Your task to perform on an android device: Is it going to rain this weekend? Image 0: 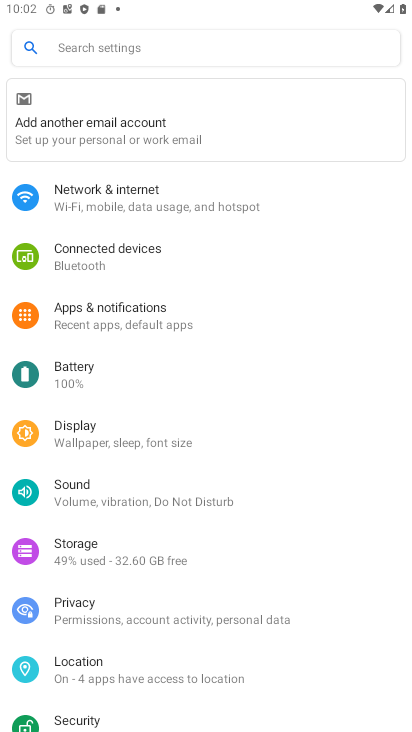
Step 0: press back button
Your task to perform on an android device: Is it going to rain this weekend? Image 1: 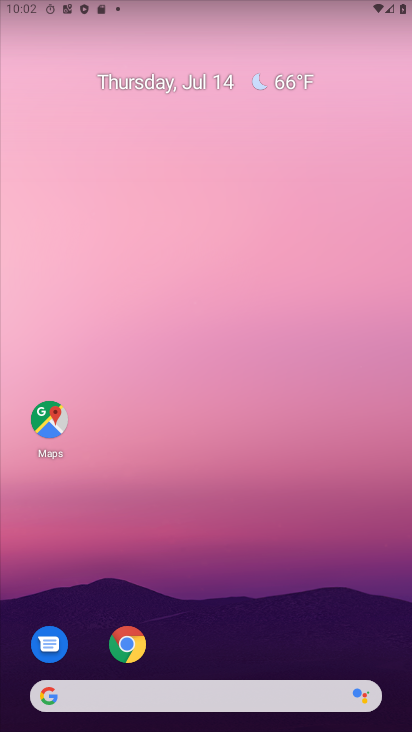
Step 1: drag from (213, 659) to (200, 337)
Your task to perform on an android device: Is it going to rain this weekend? Image 2: 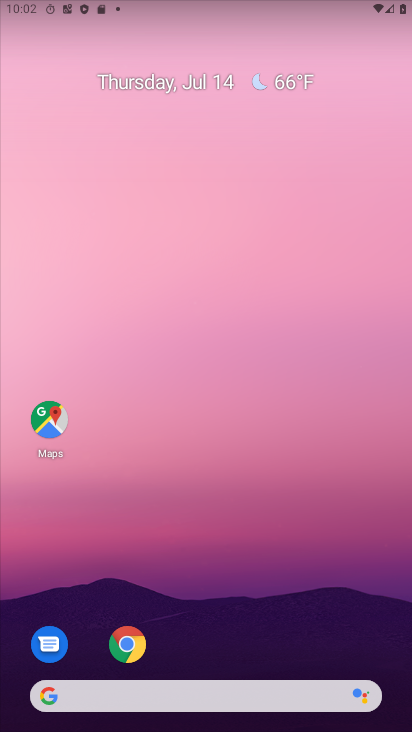
Step 2: drag from (253, 661) to (243, 180)
Your task to perform on an android device: Is it going to rain this weekend? Image 3: 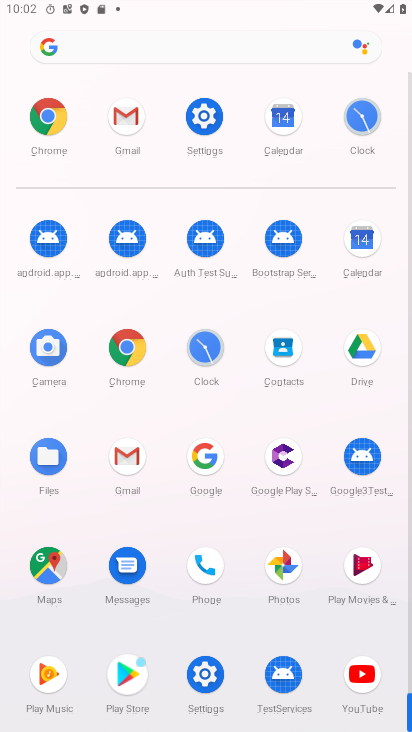
Step 3: click (47, 115)
Your task to perform on an android device: Is it going to rain this weekend? Image 4: 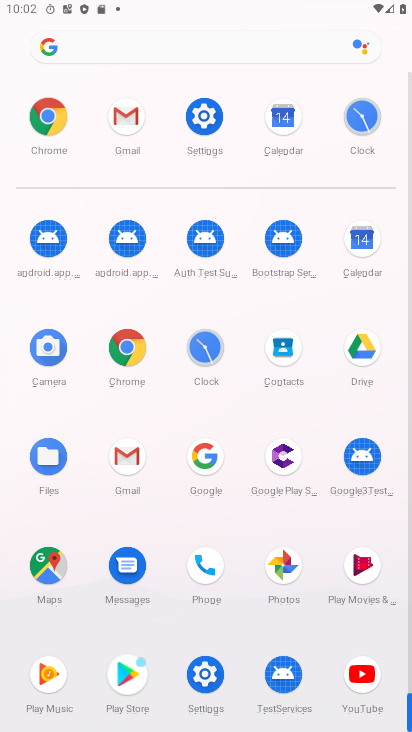
Step 4: click (47, 115)
Your task to perform on an android device: Is it going to rain this weekend? Image 5: 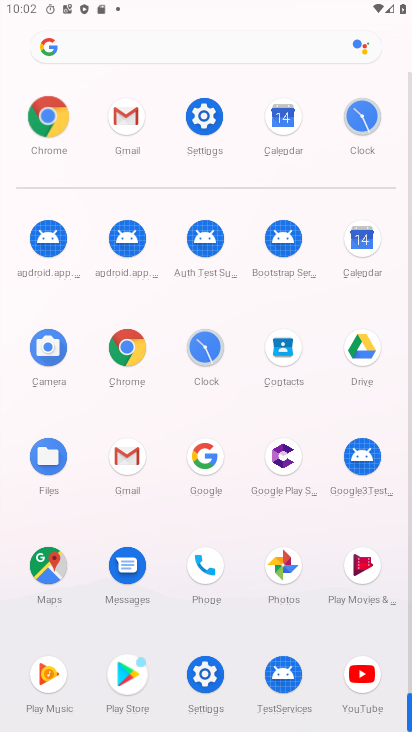
Step 5: click (47, 115)
Your task to perform on an android device: Is it going to rain this weekend? Image 6: 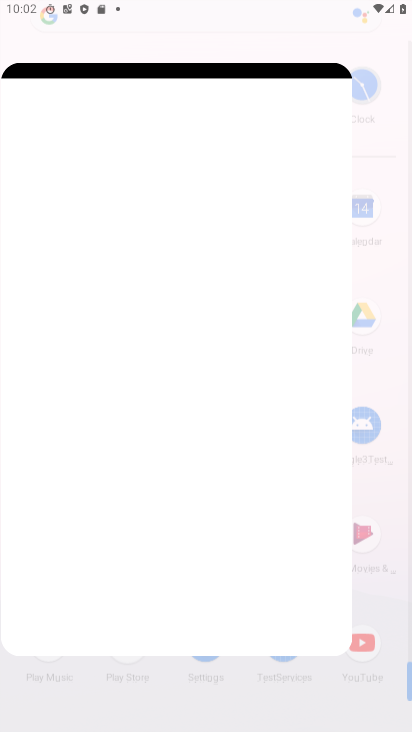
Step 6: click (47, 115)
Your task to perform on an android device: Is it going to rain this weekend? Image 7: 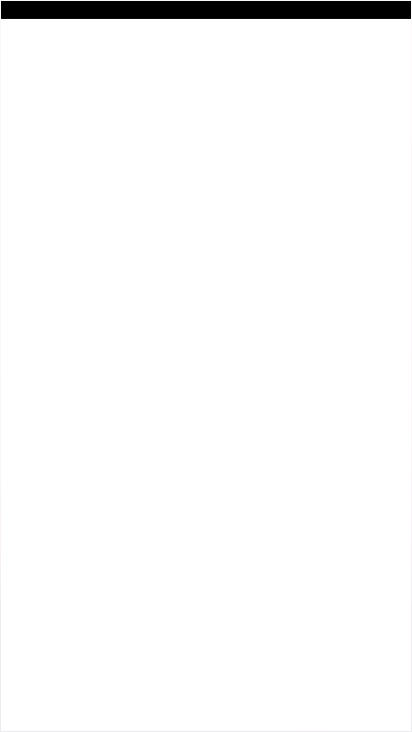
Step 7: click (47, 115)
Your task to perform on an android device: Is it going to rain this weekend? Image 8: 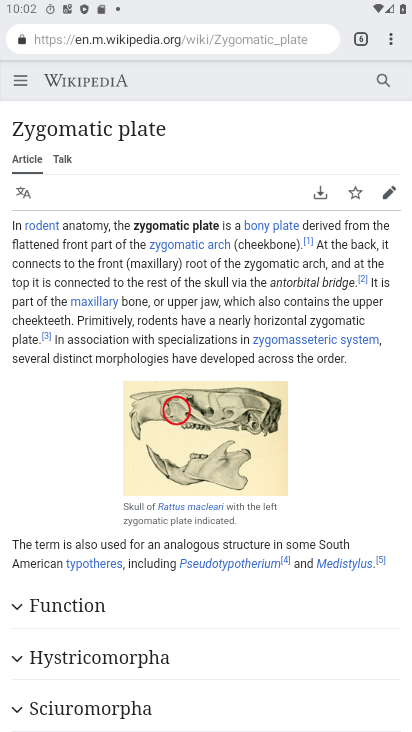
Step 8: drag from (382, 47) to (262, 468)
Your task to perform on an android device: Is it going to rain this weekend? Image 9: 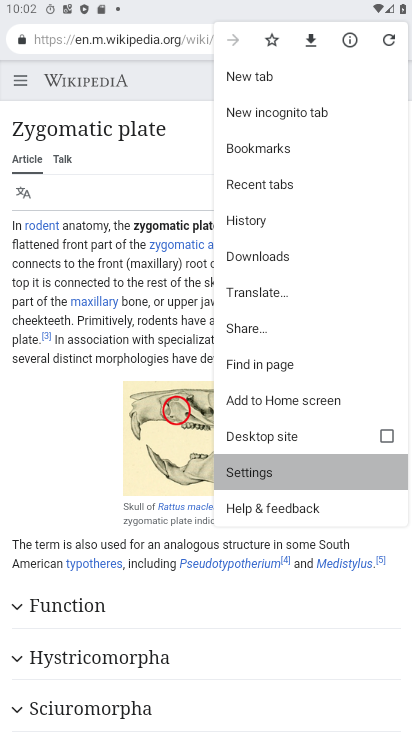
Step 9: click (263, 482)
Your task to perform on an android device: Is it going to rain this weekend? Image 10: 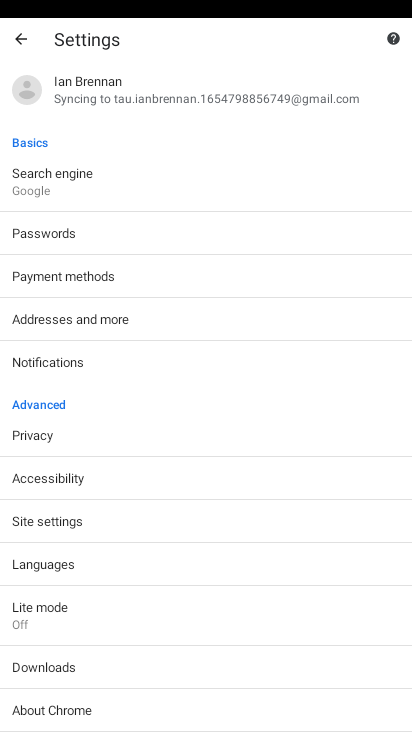
Step 10: click (22, 44)
Your task to perform on an android device: Is it going to rain this weekend? Image 11: 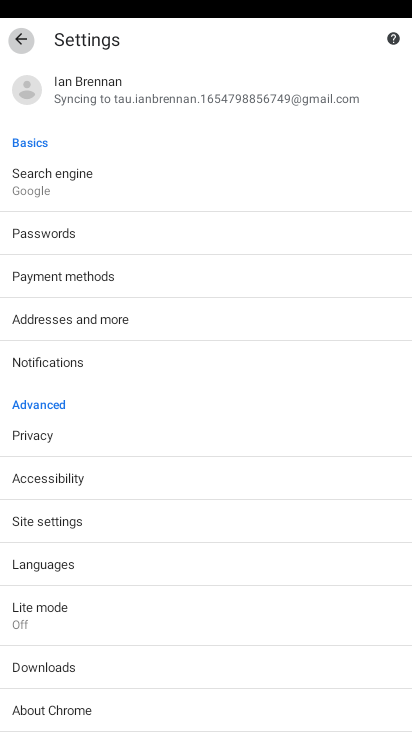
Step 11: click (22, 44)
Your task to perform on an android device: Is it going to rain this weekend? Image 12: 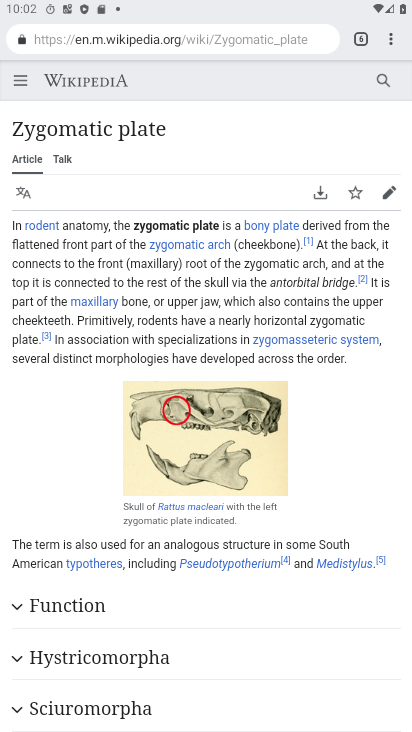
Step 12: press back button
Your task to perform on an android device: Is it going to rain this weekend? Image 13: 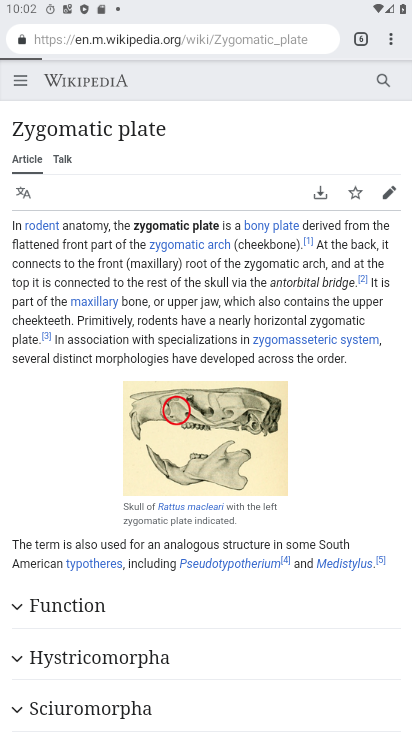
Step 13: press back button
Your task to perform on an android device: Is it going to rain this weekend? Image 14: 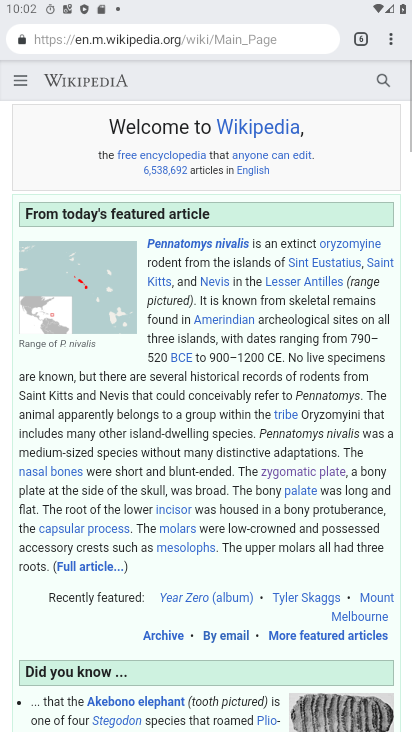
Step 14: press back button
Your task to perform on an android device: Is it going to rain this weekend? Image 15: 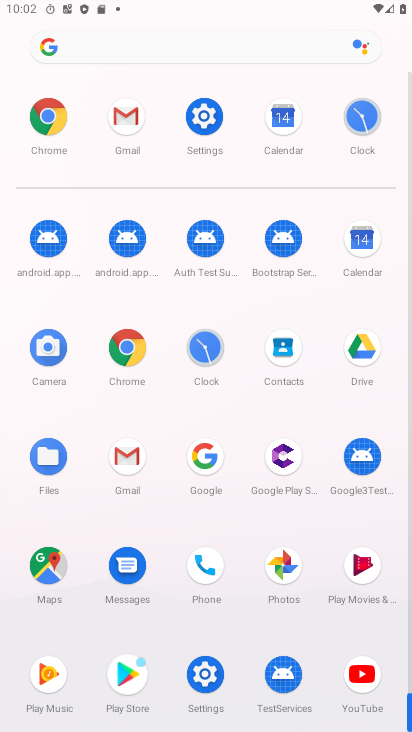
Step 15: click (50, 133)
Your task to perform on an android device: Is it going to rain this weekend? Image 16: 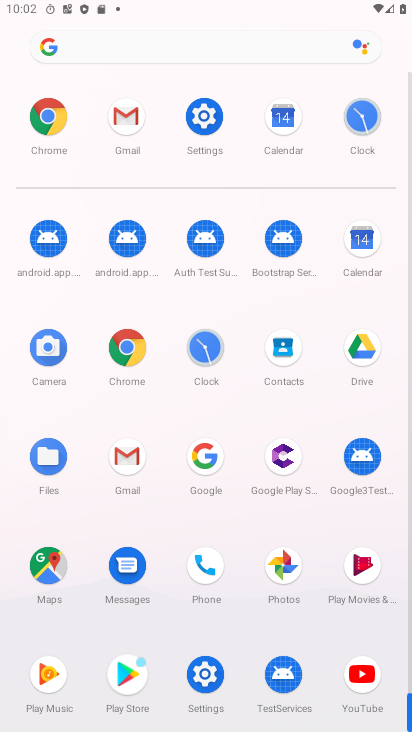
Step 16: click (57, 126)
Your task to perform on an android device: Is it going to rain this weekend? Image 17: 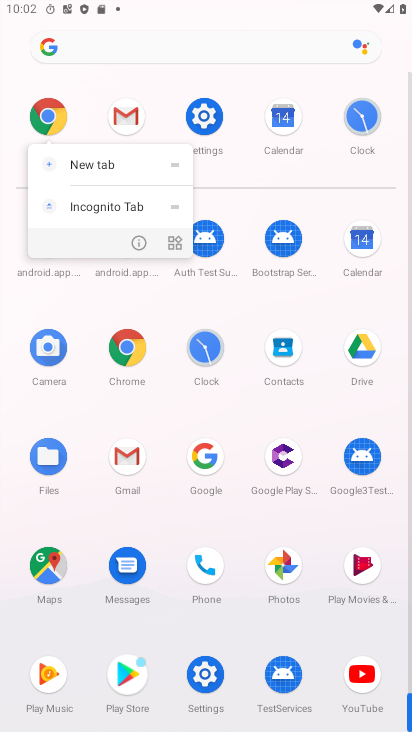
Step 17: click (57, 126)
Your task to perform on an android device: Is it going to rain this weekend? Image 18: 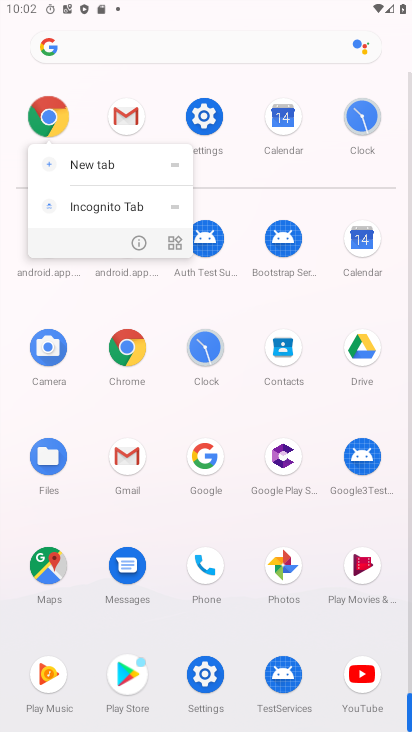
Step 18: click (57, 126)
Your task to perform on an android device: Is it going to rain this weekend? Image 19: 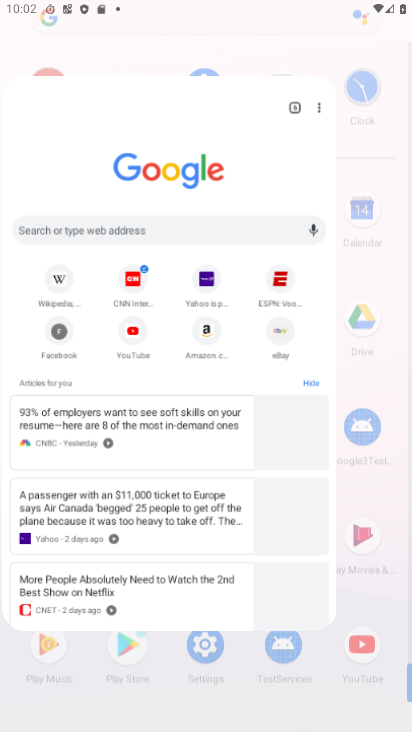
Step 19: click (57, 126)
Your task to perform on an android device: Is it going to rain this weekend? Image 20: 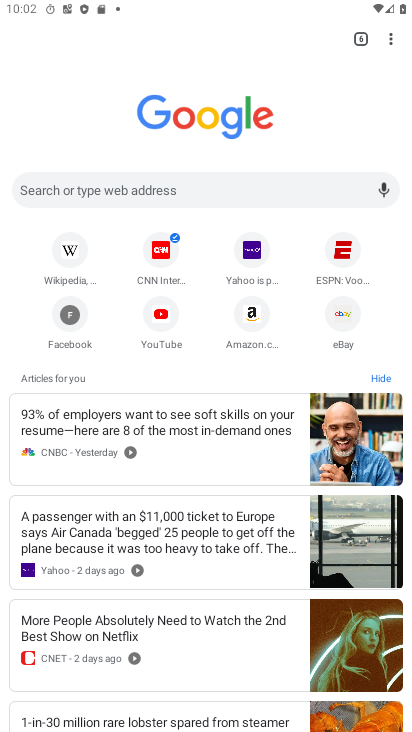
Step 20: click (114, 186)
Your task to perform on an android device: Is it going to rain this weekend? Image 21: 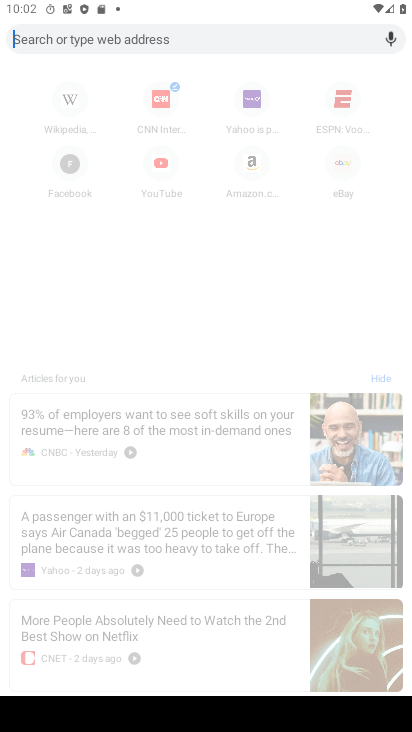
Step 21: type "is it going to rain this weekend?"
Your task to perform on an android device: Is it going to rain this weekend? Image 22: 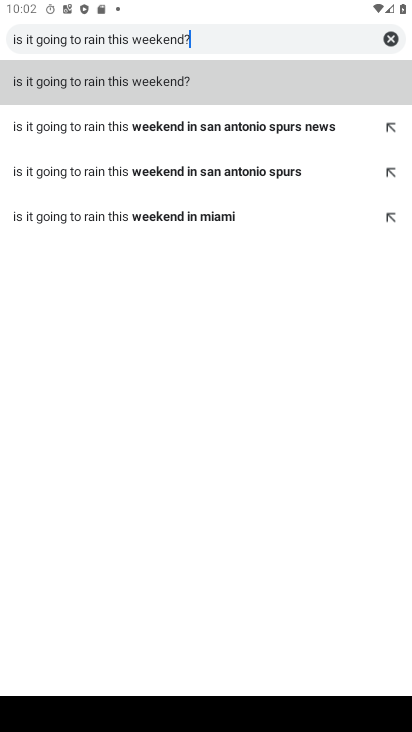
Step 22: click (167, 76)
Your task to perform on an android device: Is it going to rain this weekend? Image 23: 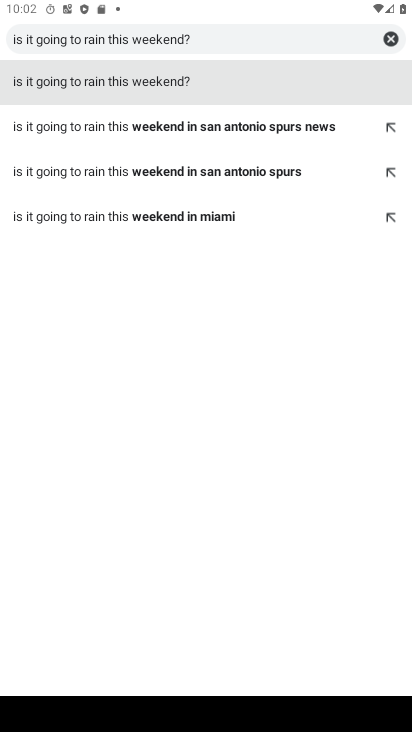
Step 23: click (167, 76)
Your task to perform on an android device: Is it going to rain this weekend? Image 24: 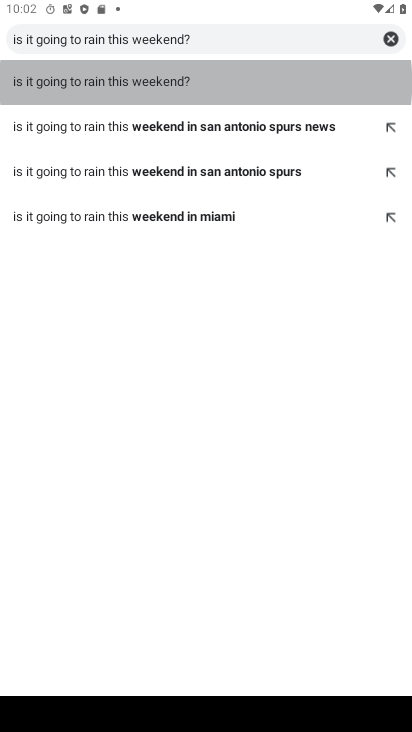
Step 24: click (167, 76)
Your task to perform on an android device: Is it going to rain this weekend? Image 25: 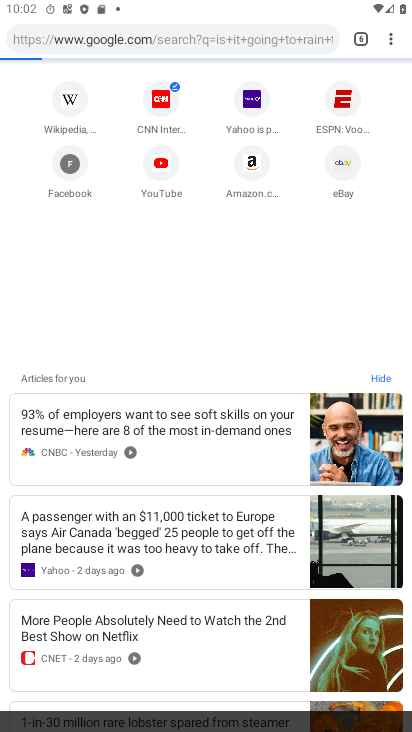
Step 25: click (171, 79)
Your task to perform on an android device: Is it going to rain this weekend? Image 26: 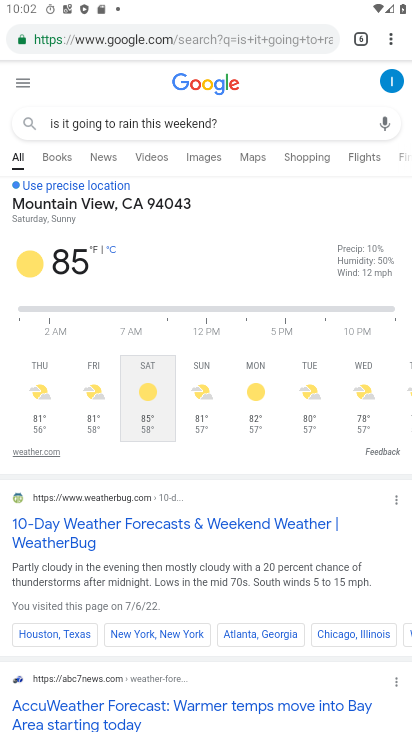
Step 26: task complete